Your task to perform on an android device: remove spam from my inbox in the gmail app Image 0: 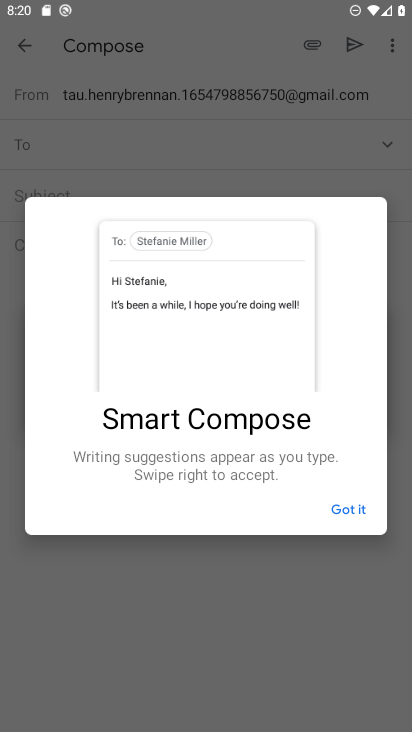
Step 0: press home button
Your task to perform on an android device: remove spam from my inbox in the gmail app Image 1: 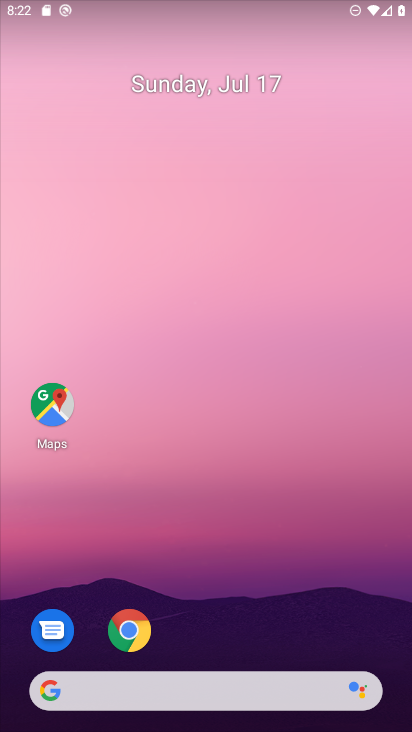
Step 1: drag from (331, 606) to (237, 31)
Your task to perform on an android device: remove spam from my inbox in the gmail app Image 2: 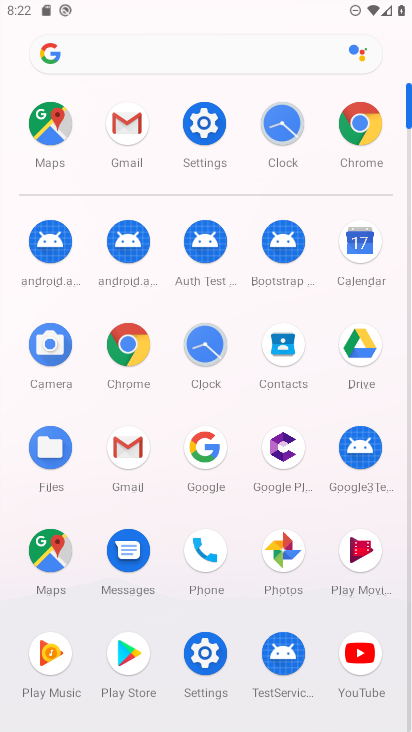
Step 2: click (129, 464)
Your task to perform on an android device: remove spam from my inbox in the gmail app Image 3: 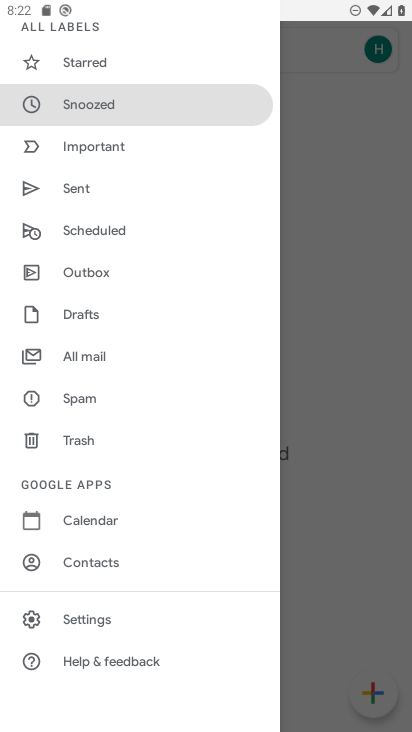
Step 3: click (85, 407)
Your task to perform on an android device: remove spam from my inbox in the gmail app Image 4: 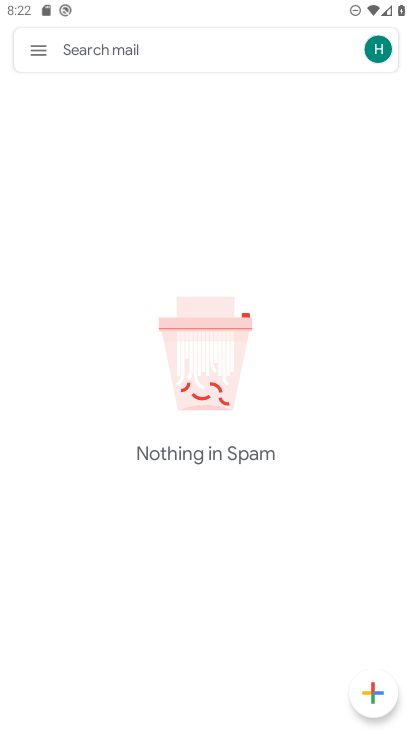
Step 4: task complete